Your task to perform on an android device: toggle airplane mode Image 0: 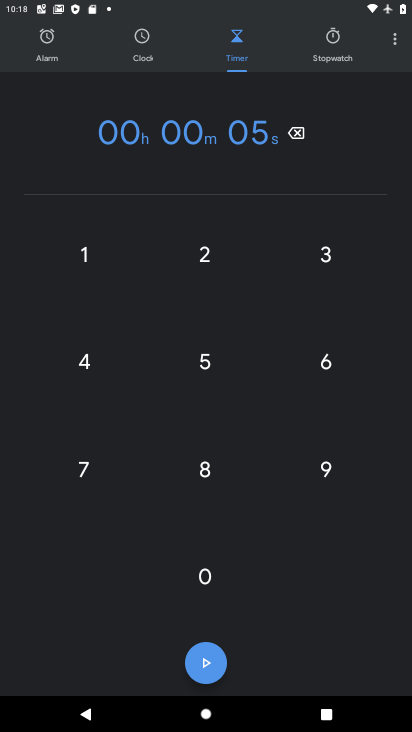
Step 0: press home button
Your task to perform on an android device: toggle airplane mode Image 1: 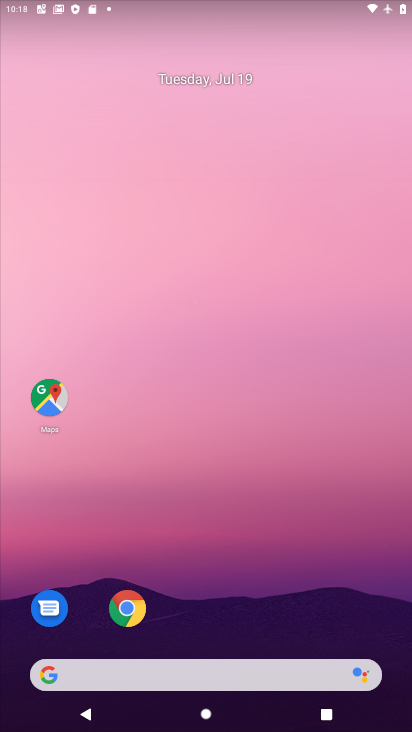
Step 1: drag from (297, 541) to (271, 111)
Your task to perform on an android device: toggle airplane mode Image 2: 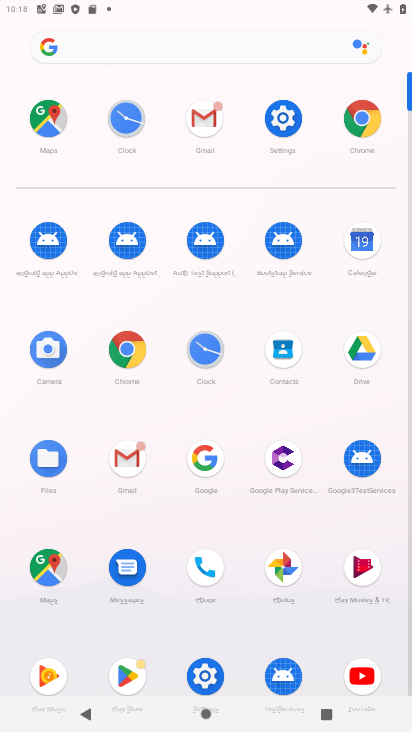
Step 2: click (286, 113)
Your task to perform on an android device: toggle airplane mode Image 3: 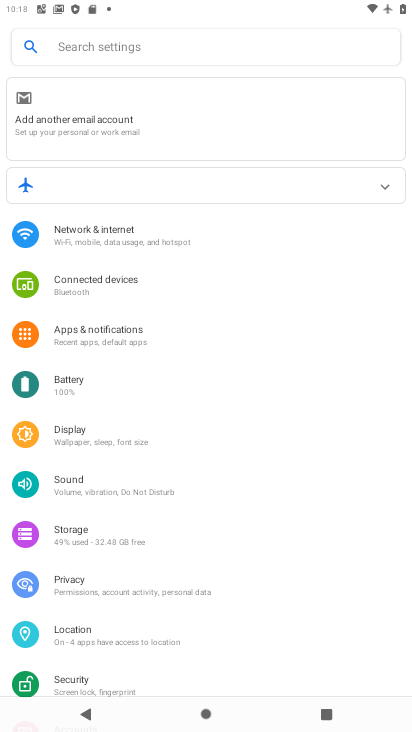
Step 3: click (191, 237)
Your task to perform on an android device: toggle airplane mode Image 4: 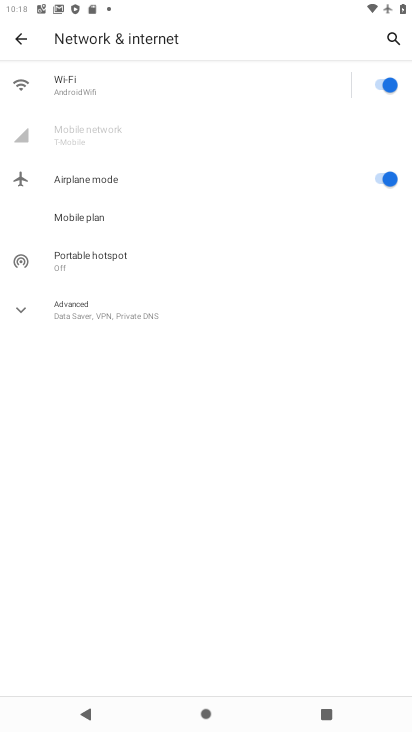
Step 4: click (368, 173)
Your task to perform on an android device: toggle airplane mode Image 5: 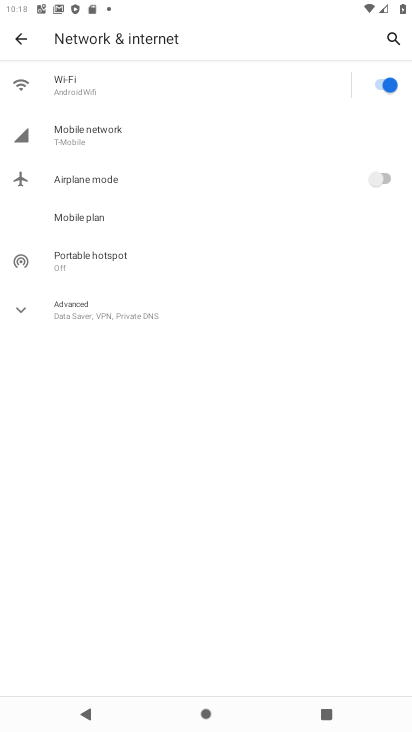
Step 5: task complete